Your task to perform on an android device: move a message to another label in the gmail app Image 0: 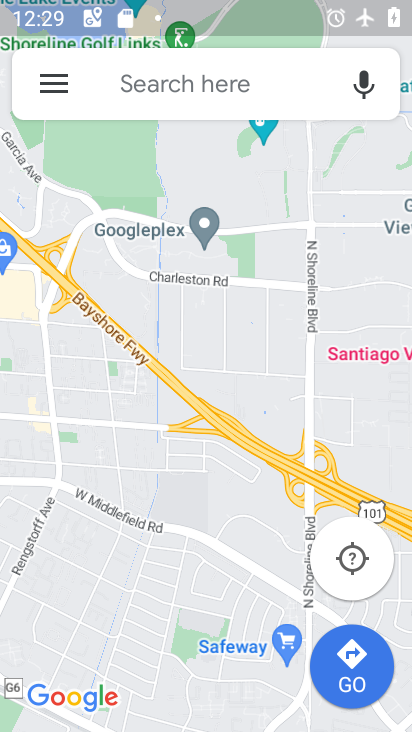
Step 0: press home button
Your task to perform on an android device: move a message to another label in the gmail app Image 1: 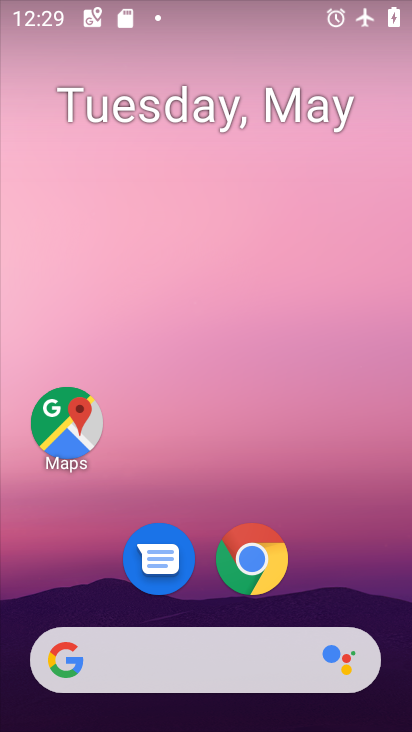
Step 1: drag from (376, 589) to (272, 86)
Your task to perform on an android device: move a message to another label in the gmail app Image 2: 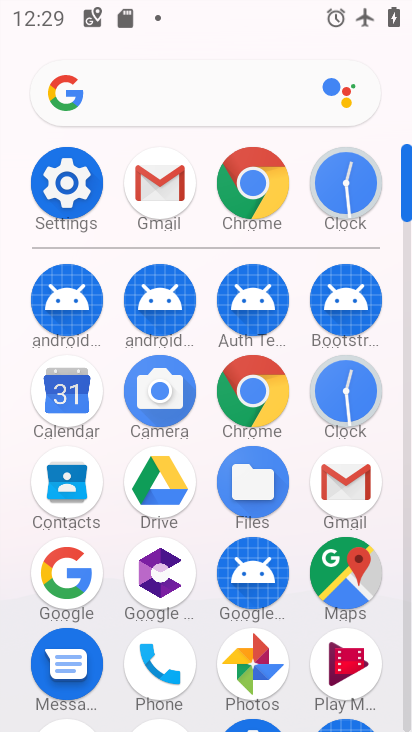
Step 2: click (143, 181)
Your task to perform on an android device: move a message to another label in the gmail app Image 3: 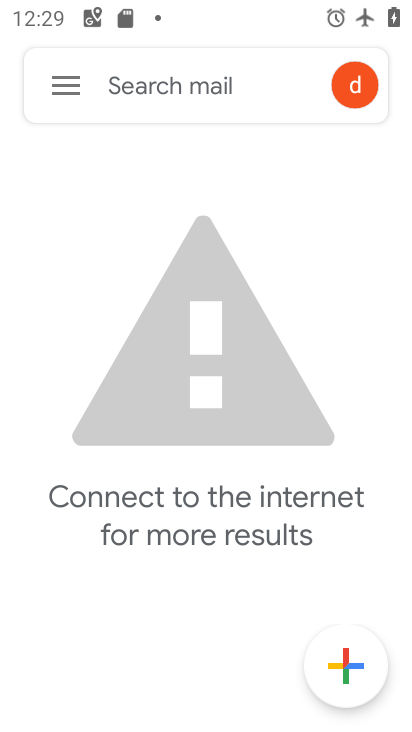
Step 3: click (64, 94)
Your task to perform on an android device: move a message to another label in the gmail app Image 4: 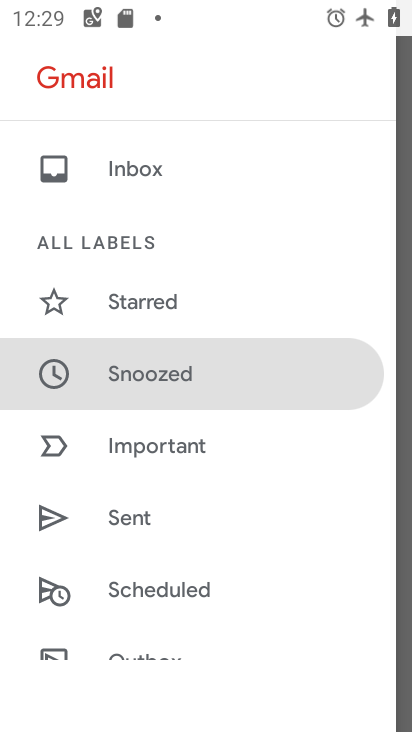
Step 4: click (151, 179)
Your task to perform on an android device: move a message to another label in the gmail app Image 5: 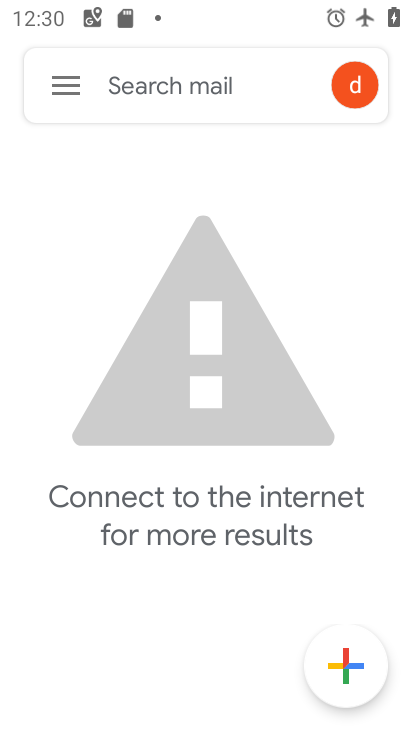
Step 5: task complete